Your task to perform on an android device: View the shopping cart on walmart.com. Search for usb-a on walmart.com, select the first entry, add it to the cart, then select checkout. Image 0: 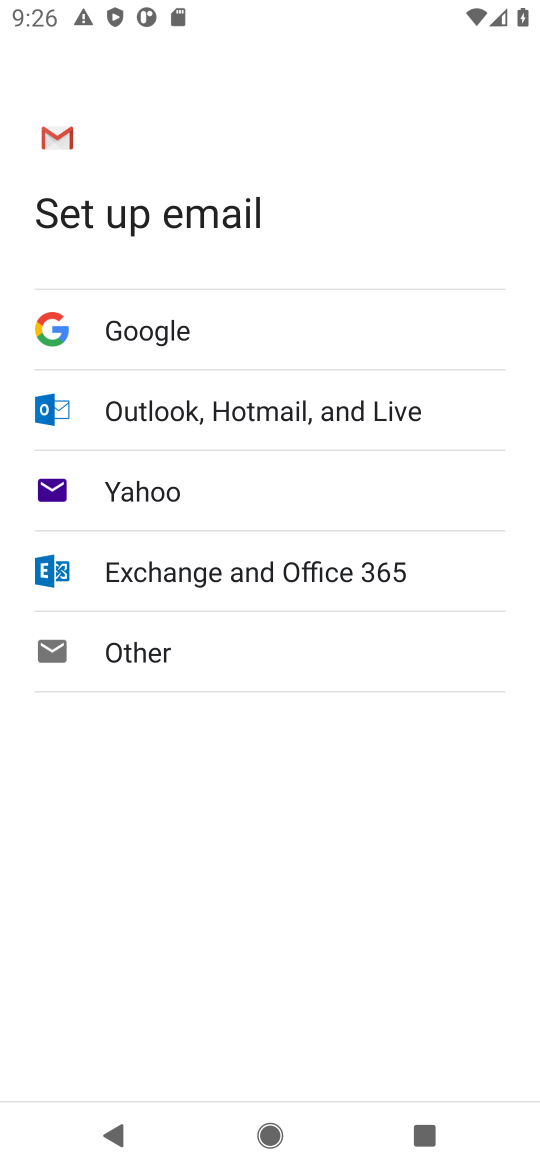
Step 0: press home button
Your task to perform on an android device: View the shopping cart on walmart.com. Search for usb-a on walmart.com, select the first entry, add it to the cart, then select checkout. Image 1: 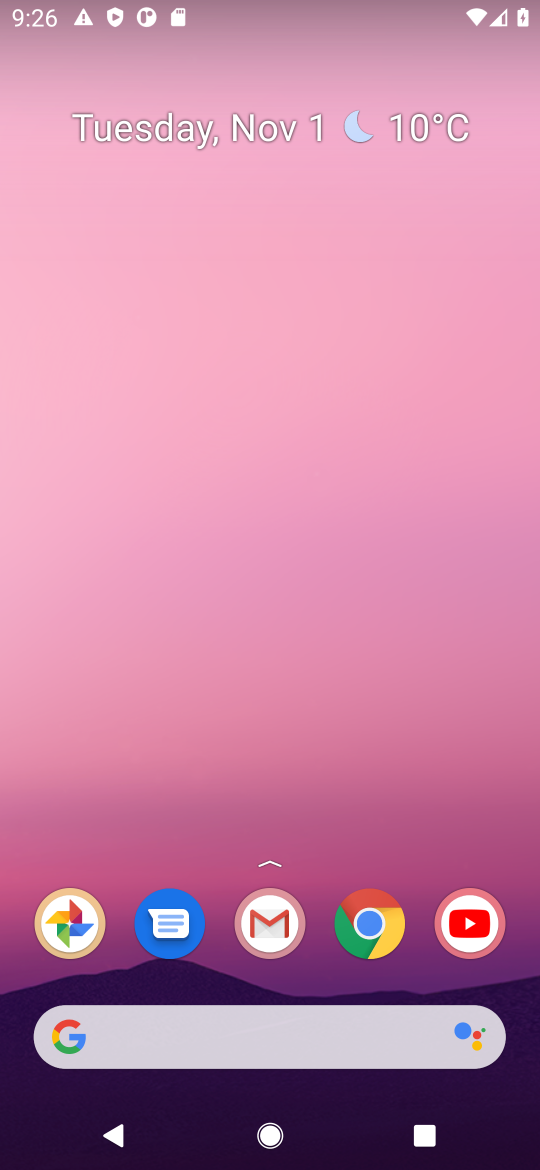
Step 1: drag from (344, 968) to (343, 204)
Your task to perform on an android device: View the shopping cart on walmart.com. Search for usb-a on walmart.com, select the first entry, add it to the cart, then select checkout. Image 2: 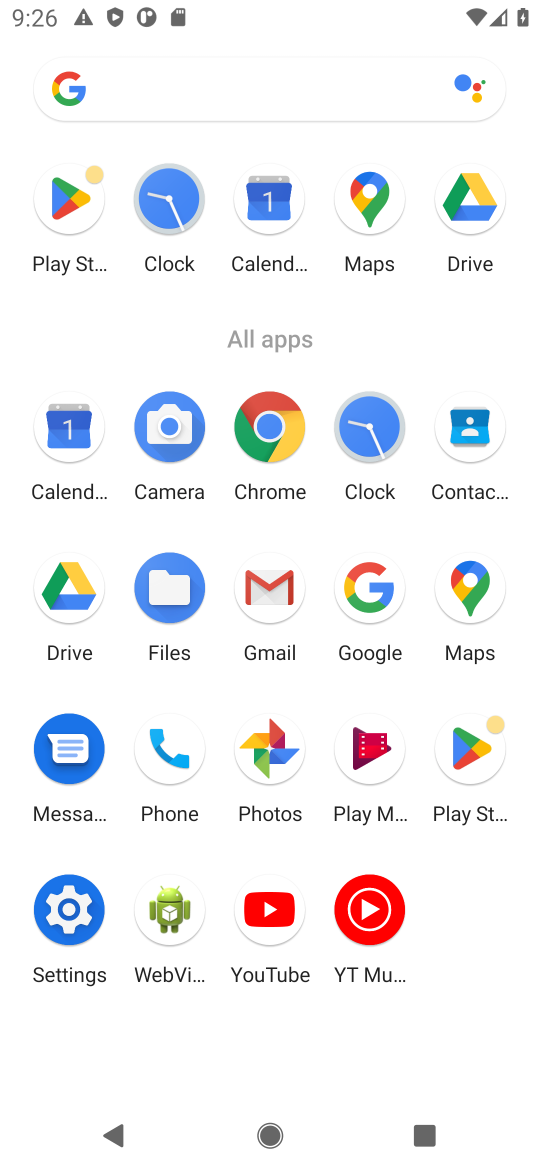
Step 2: click (283, 423)
Your task to perform on an android device: View the shopping cart on walmart.com. Search for usb-a on walmart.com, select the first entry, add it to the cart, then select checkout. Image 3: 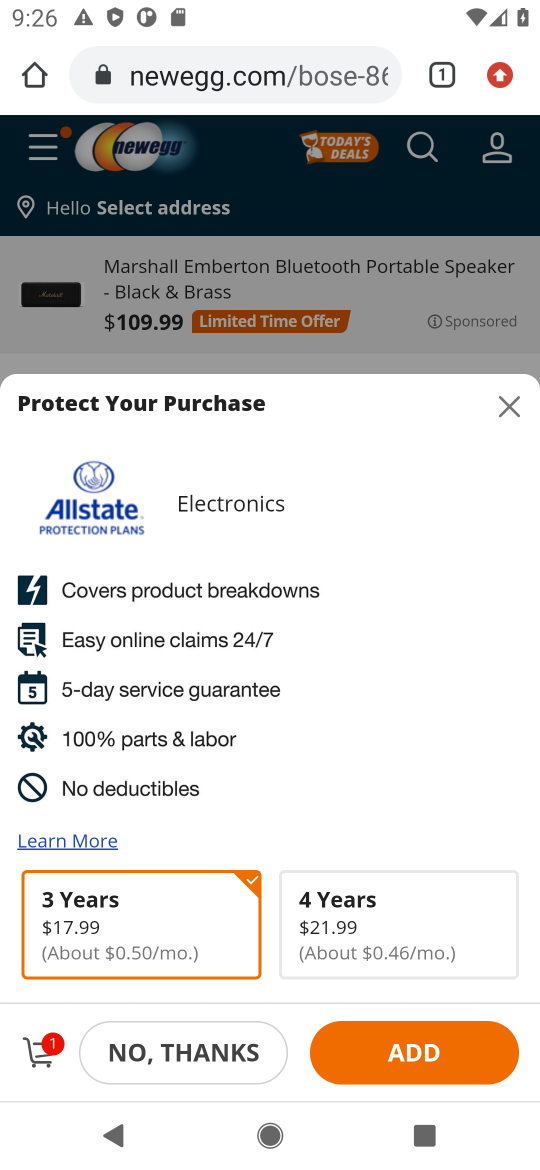
Step 3: click (290, 64)
Your task to perform on an android device: View the shopping cart on walmart.com. Search for usb-a on walmart.com, select the first entry, add it to the cart, then select checkout. Image 4: 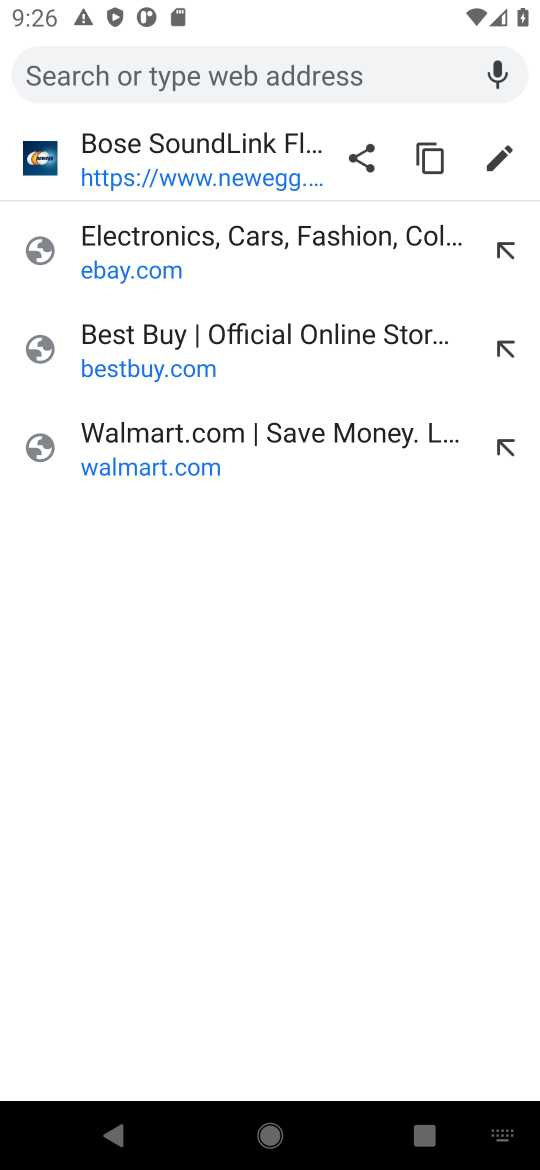
Step 4: type "walmart.com"
Your task to perform on an android device: View the shopping cart on walmart.com. Search for usb-a on walmart.com, select the first entry, add it to the cart, then select checkout. Image 5: 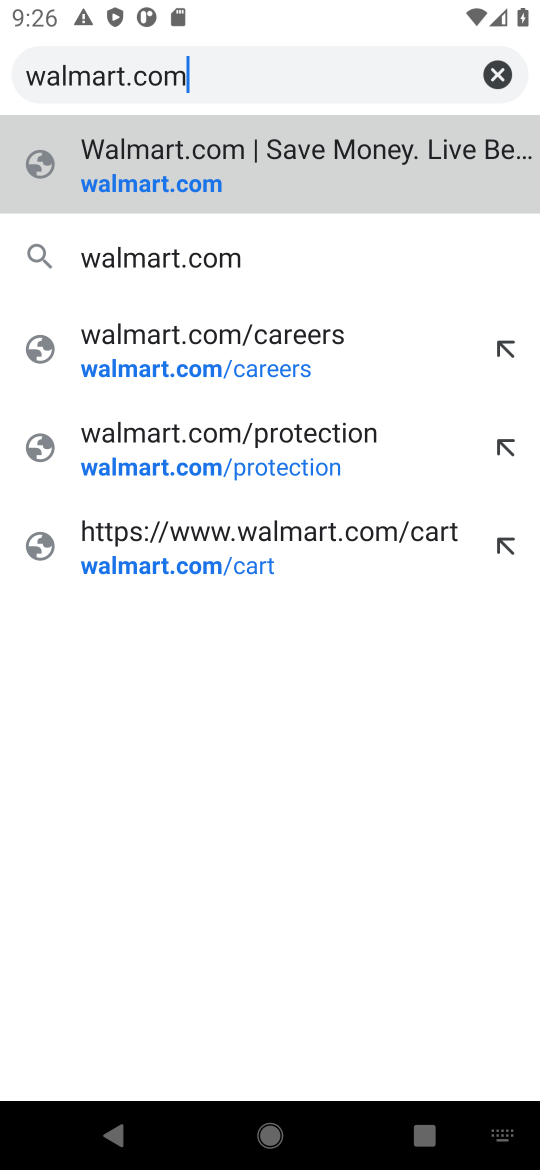
Step 5: press enter
Your task to perform on an android device: View the shopping cart on walmart.com. Search for usb-a on walmart.com, select the first entry, add it to the cart, then select checkout. Image 6: 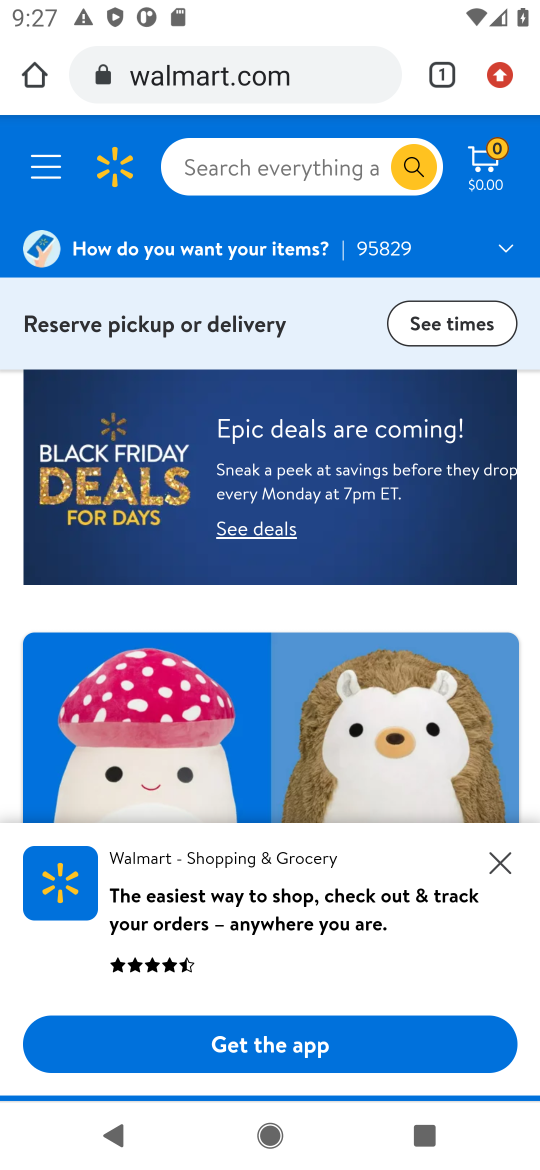
Step 6: click (488, 155)
Your task to perform on an android device: View the shopping cart on walmart.com. Search for usb-a on walmart.com, select the first entry, add it to the cart, then select checkout. Image 7: 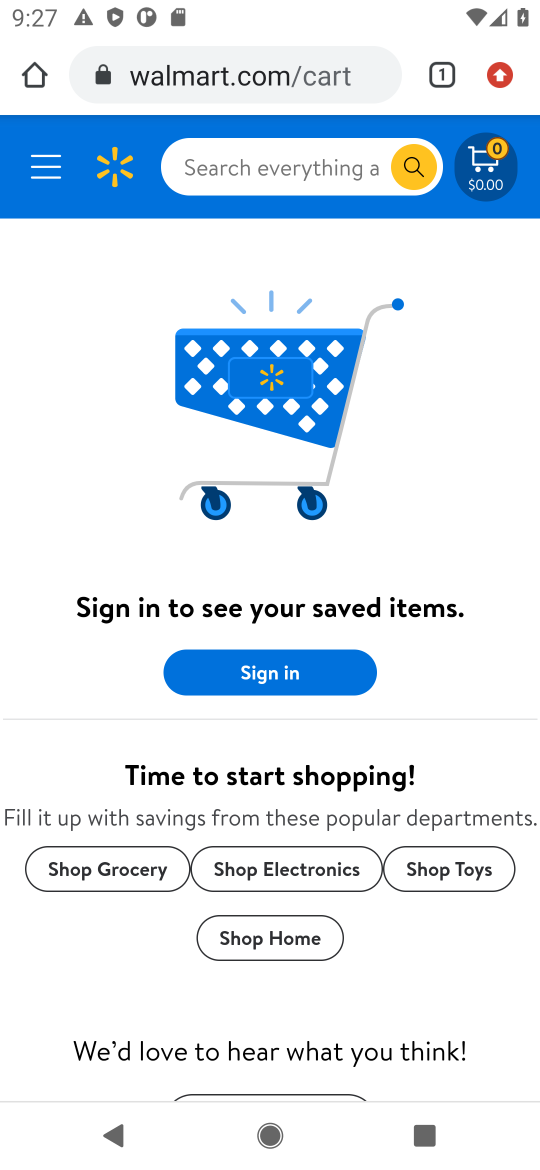
Step 7: click (297, 173)
Your task to perform on an android device: View the shopping cart on walmart.com. Search for usb-a on walmart.com, select the first entry, add it to the cart, then select checkout. Image 8: 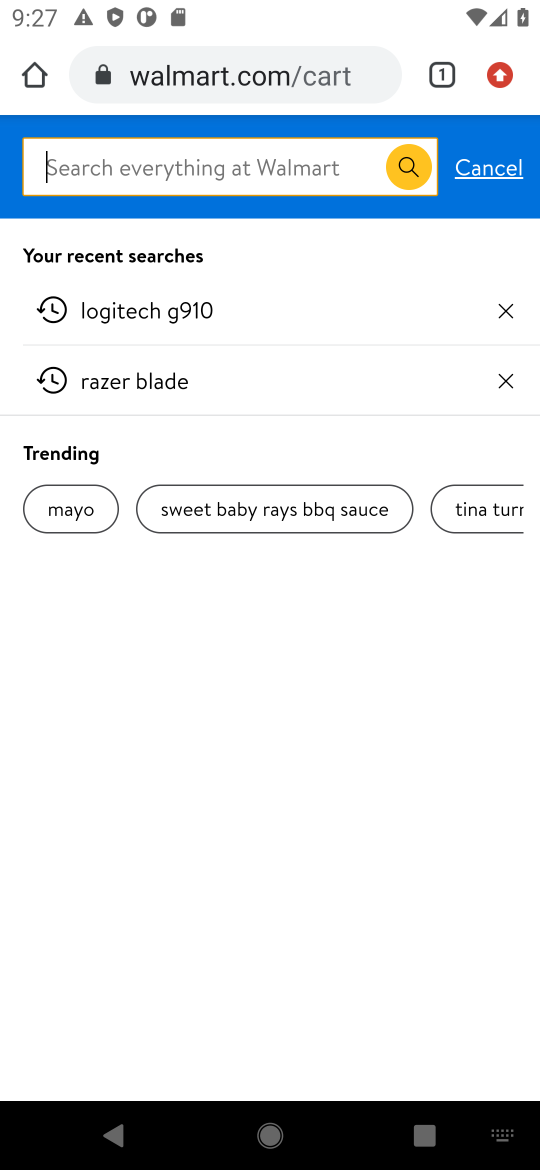
Step 8: type "usb-a"
Your task to perform on an android device: View the shopping cart on walmart.com. Search for usb-a on walmart.com, select the first entry, add it to the cart, then select checkout. Image 9: 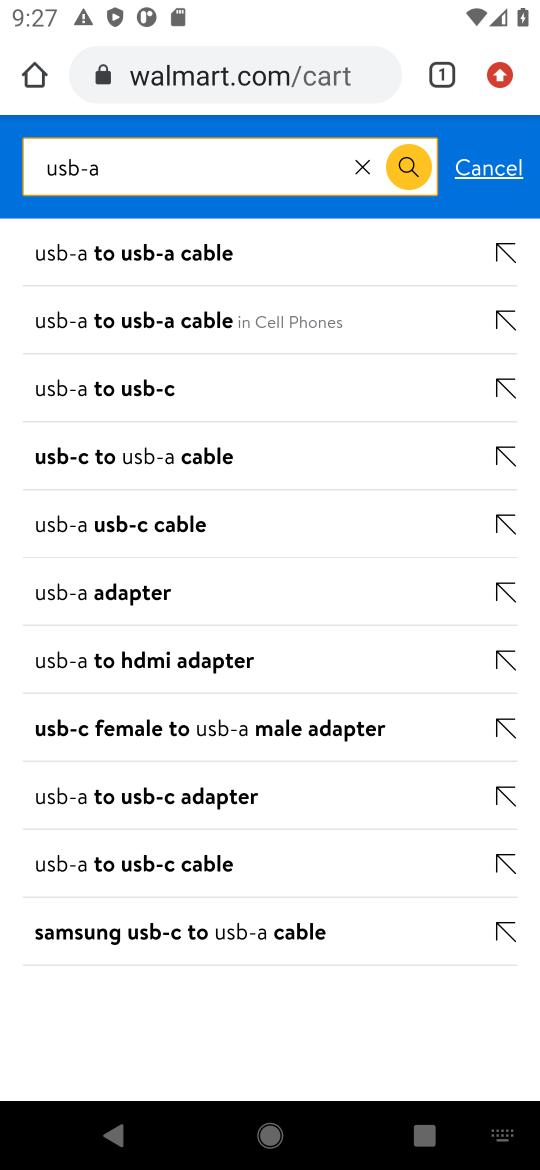
Step 9: press enter
Your task to perform on an android device: View the shopping cart on walmart.com. Search for usb-a on walmart.com, select the first entry, add it to the cart, then select checkout. Image 10: 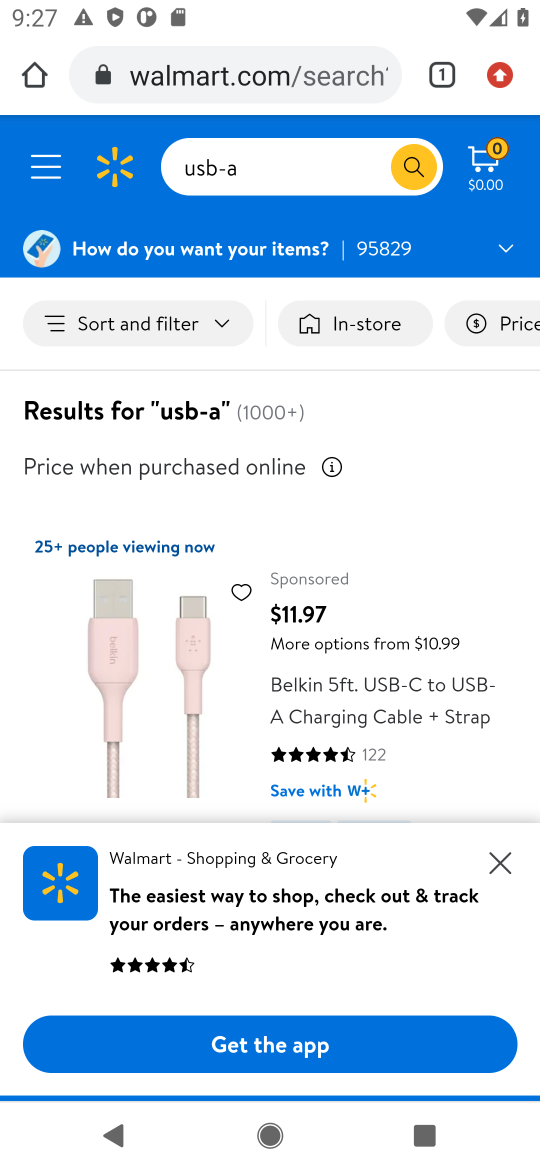
Step 10: drag from (322, 674) to (233, 229)
Your task to perform on an android device: View the shopping cart on walmart.com. Search for usb-a on walmart.com, select the first entry, add it to the cart, then select checkout. Image 11: 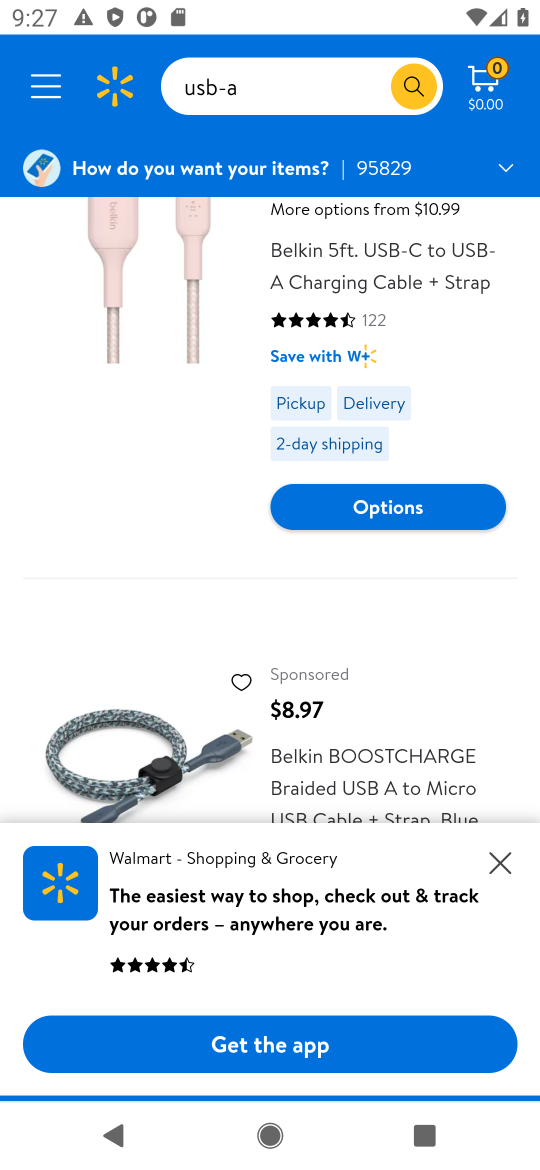
Step 11: drag from (309, 719) to (252, 156)
Your task to perform on an android device: View the shopping cart on walmart.com. Search for usb-a on walmart.com, select the first entry, add it to the cart, then select checkout. Image 12: 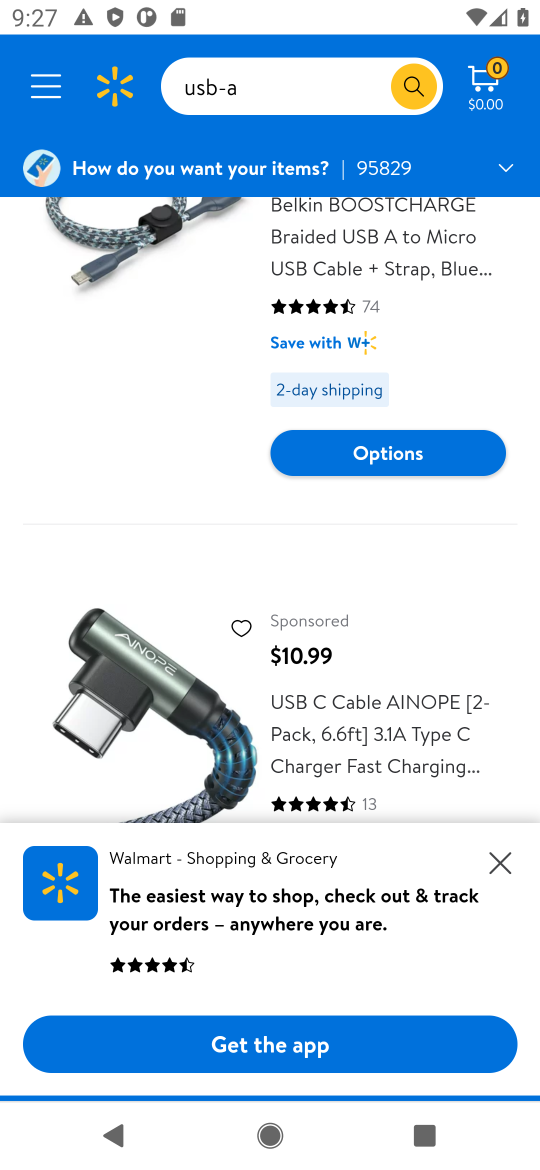
Step 12: drag from (353, 803) to (309, 316)
Your task to perform on an android device: View the shopping cart on walmart.com. Search for usb-a on walmart.com, select the first entry, add it to the cart, then select checkout. Image 13: 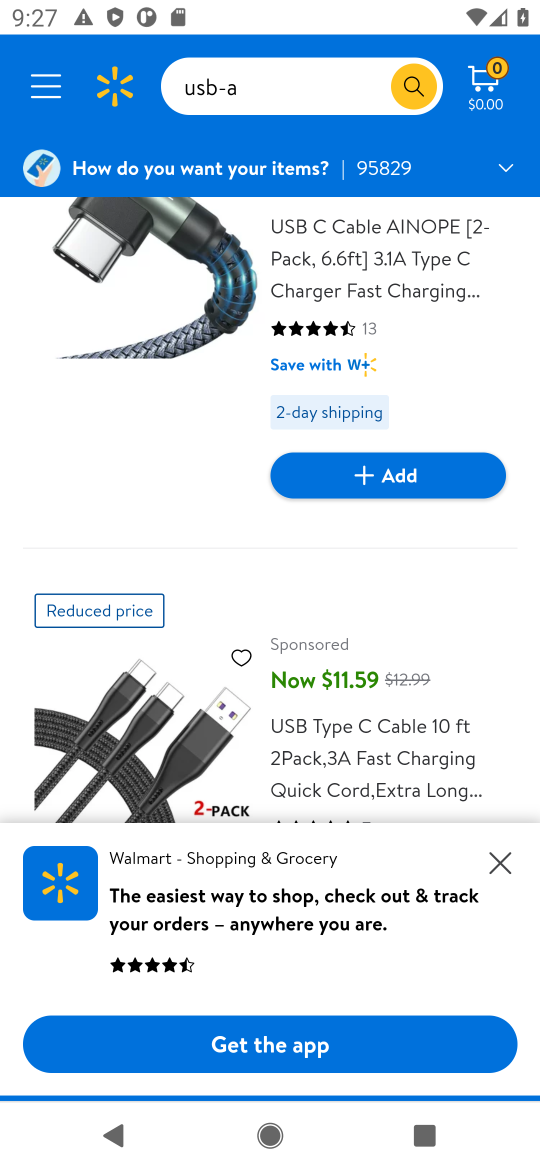
Step 13: drag from (398, 766) to (326, 223)
Your task to perform on an android device: View the shopping cart on walmart.com. Search for usb-a on walmart.com, select the first entry, add it to the cart, then select checkout. Image 14: 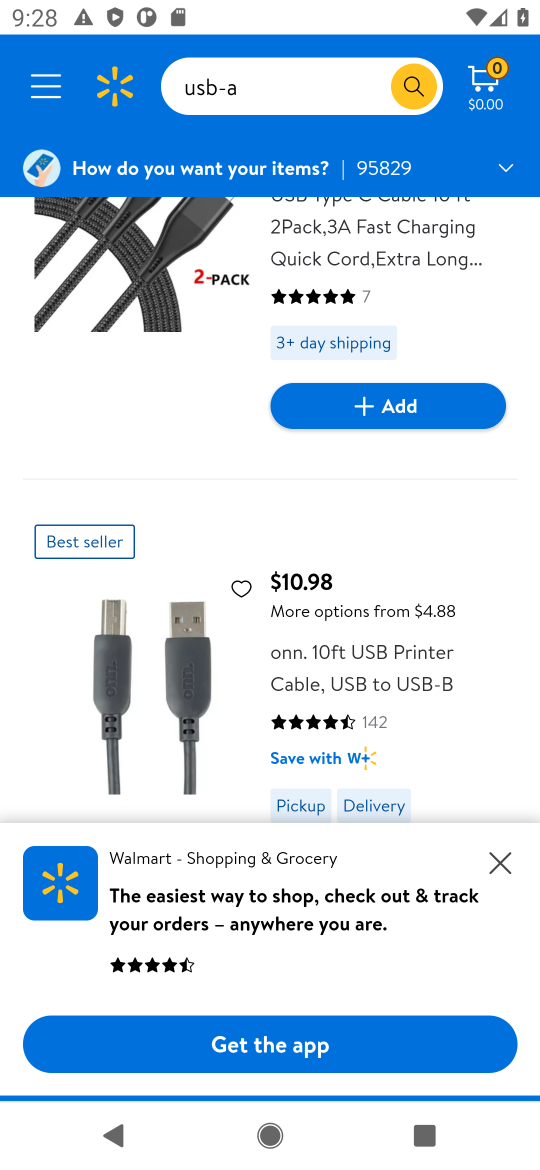
Step 14: drag from (383, 663) to (376, 479)
Your task to perform on an android device: View the shopping cart on walmart.com. Search for usb-a on walmart.com, select the first entry, add it to the cart, then select checkout. Image 15: 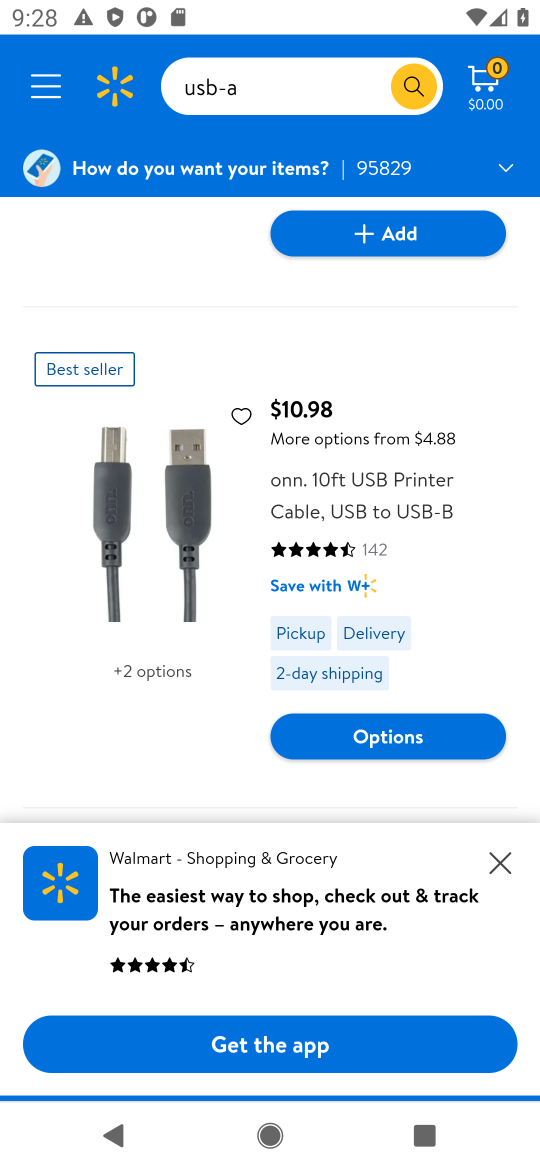
Step 15: click (344, 522)
Your task to perform on an android device: View the shopping cart on walmart.com. Search for usb-a on walmart.com, select the first entry, add it to the cart, then select checkout. Image 16: 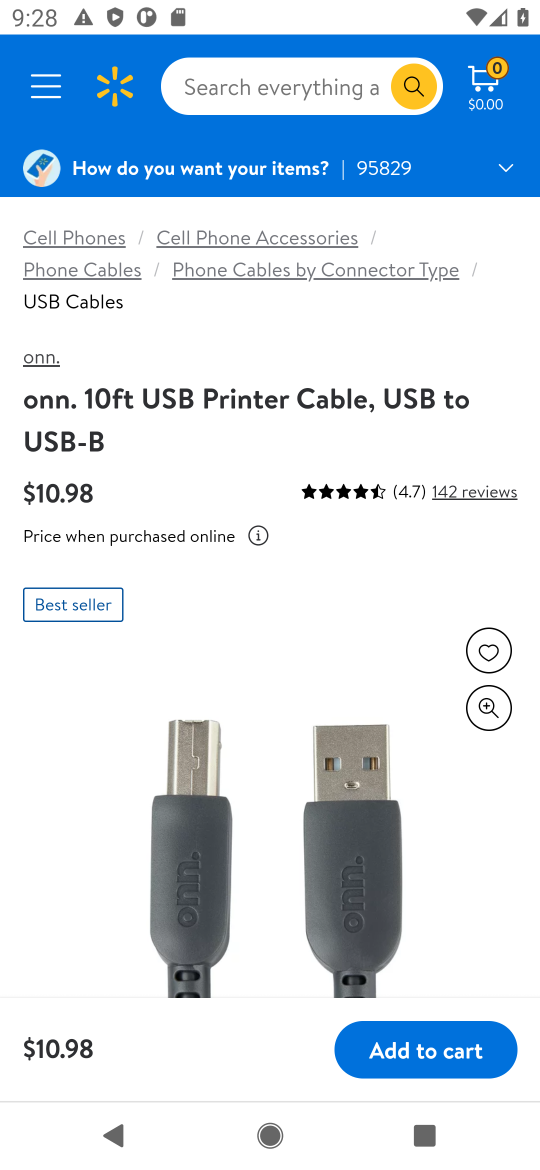
Step 16: drag from (374, 870) to (365, 417)
Your task to perform on an android device: View the shopping cart on walmart.com. Search for usb-a on walmart.com, select the first entry, add it to the cart, then select checkout. Image 17: 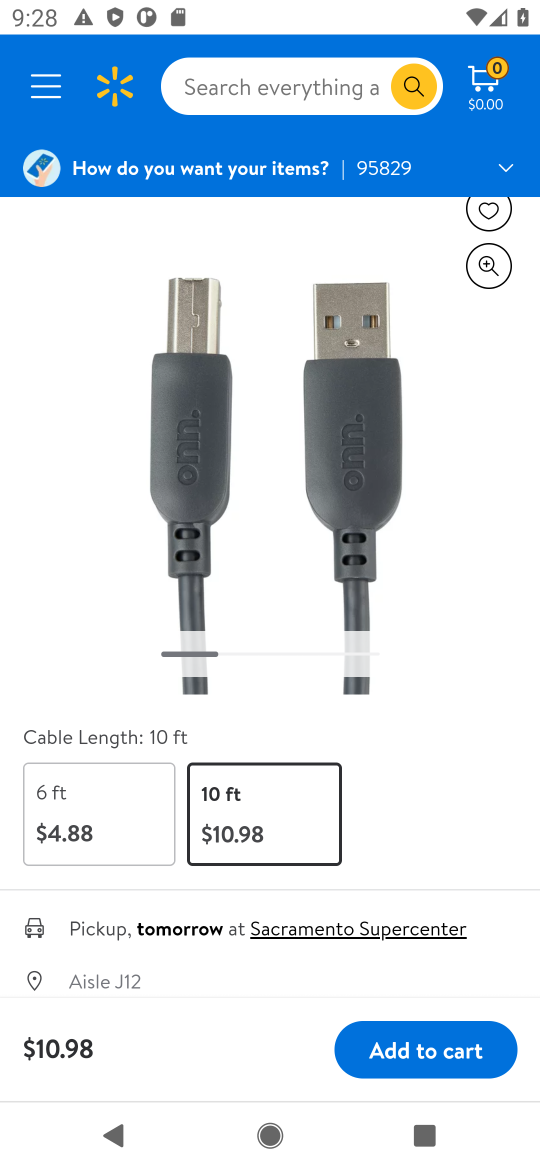
Step 17: click (448, 1058)
Your task to perform on an android device: View the shopping cart on walmart.com. Search for usb-a on walmart.com, select the first entry, add it to the cart, then select checkout. Image 18: 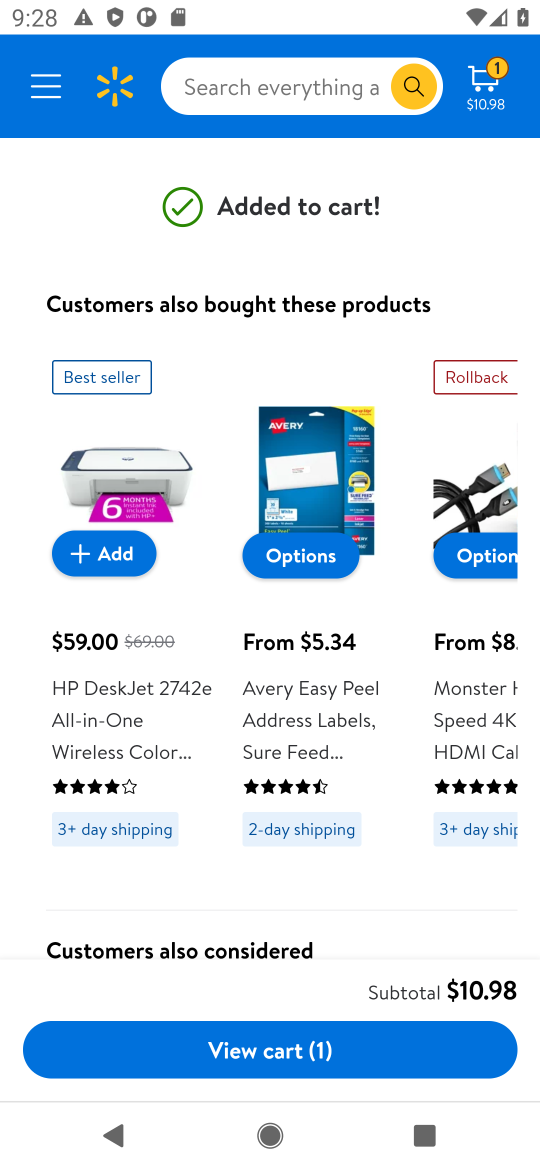
Step 18: click (338, 1054)
Your task to perform on an android device: View the shopping cart on walmart.com. Search for usb-a on walmart.com, select the first entry, add it to the cart, then select checkout. Image 19: 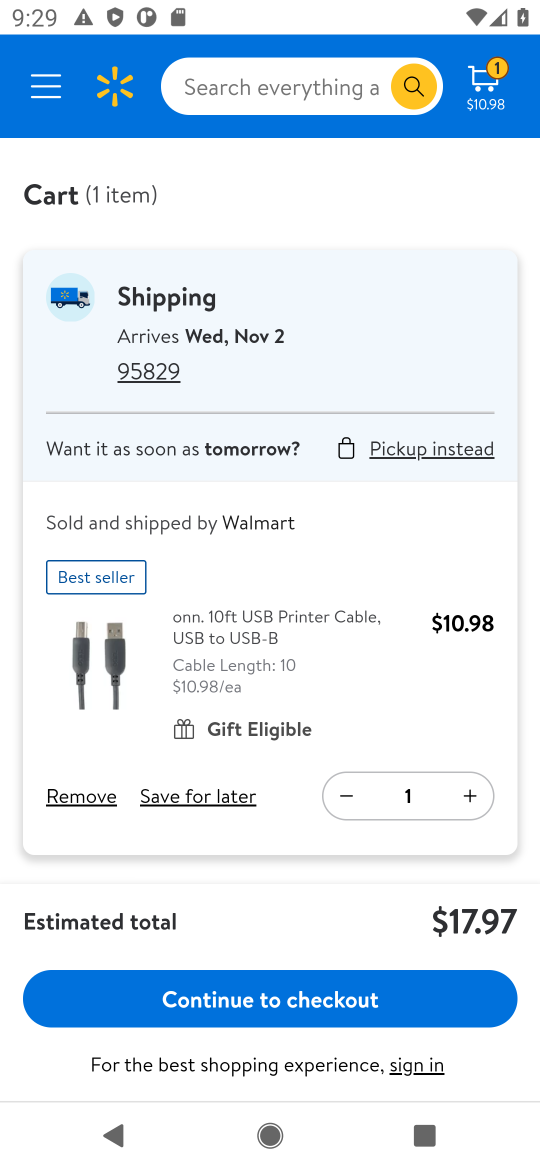
Step 19: click (347, 1004)
Your task to perform on an android device: View the shopping cart on walmart.com. Search for usb-a on walmart.com, select the first entry, add it to the cart, then select checkout. Image 20: 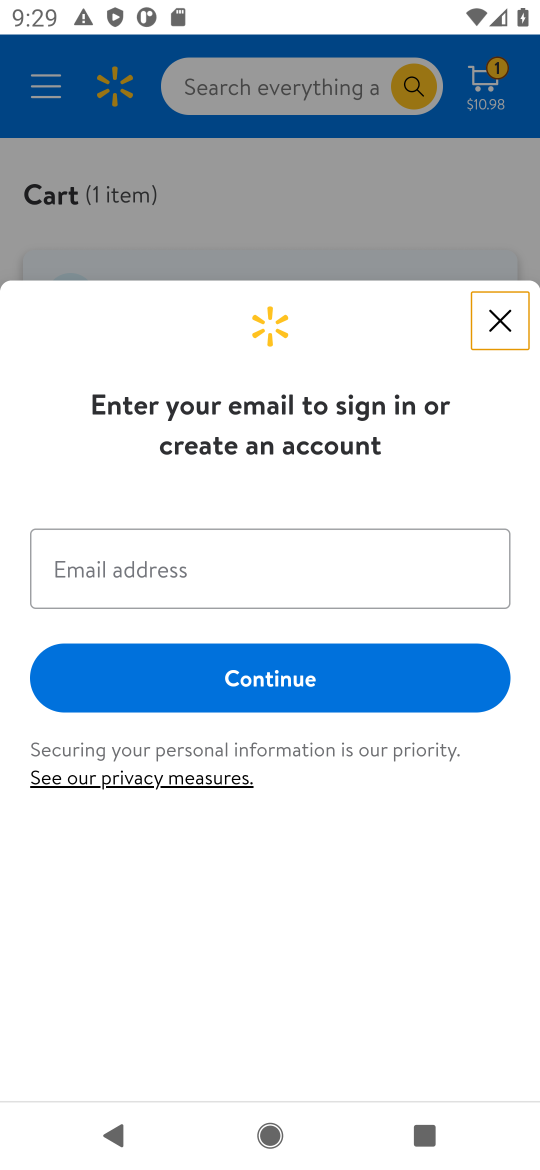
Step 20: task complete